Your task to perform on an android device: uninstall "File Manager" Image 0: 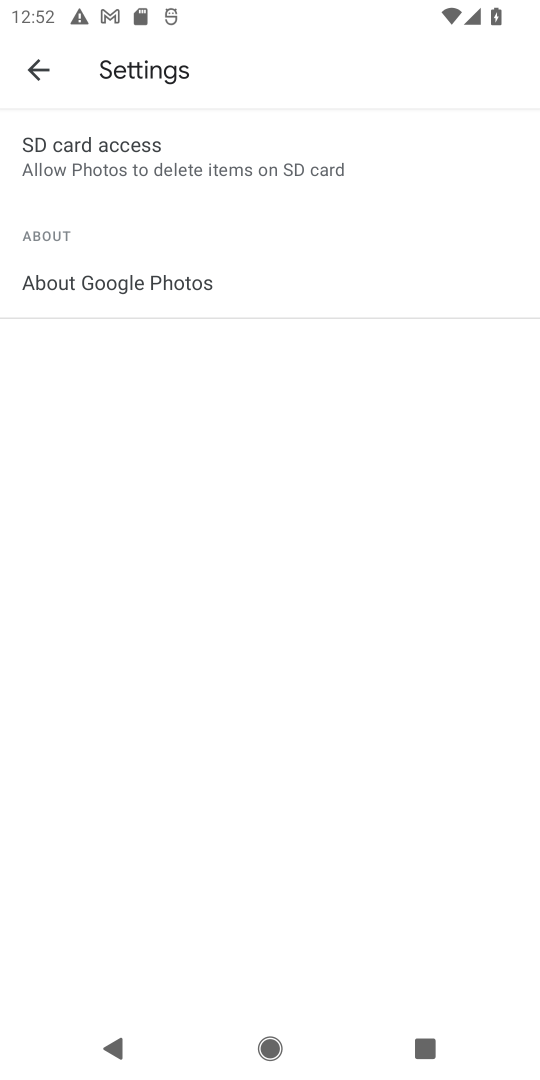
Step 0: press home button
Your task to perform on an android device: uninstall "File Manager" Image 1: 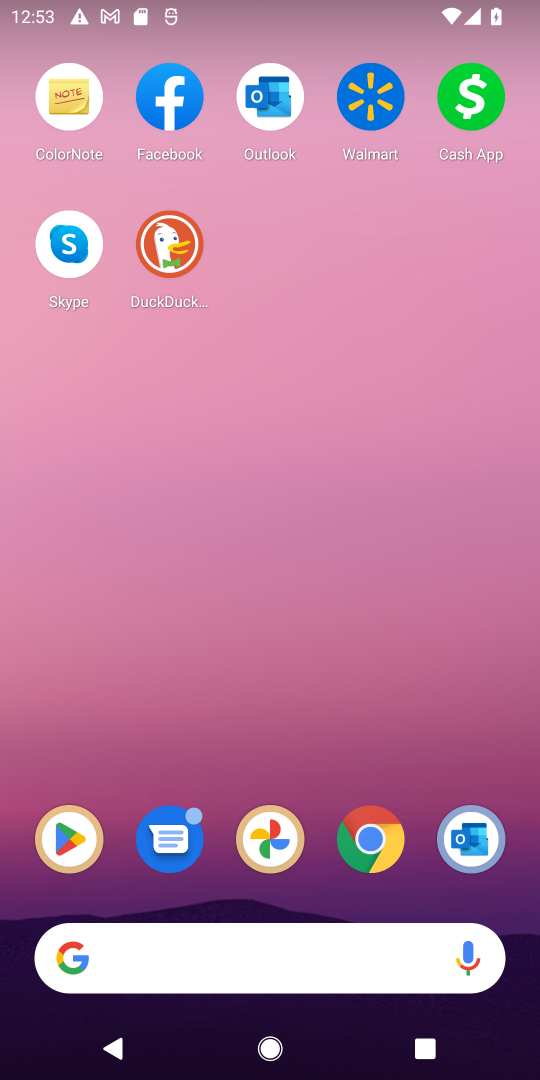
Step 1: click (83, 840)
Your task to perform on an android device: uninstall "File Manager" Image 2: 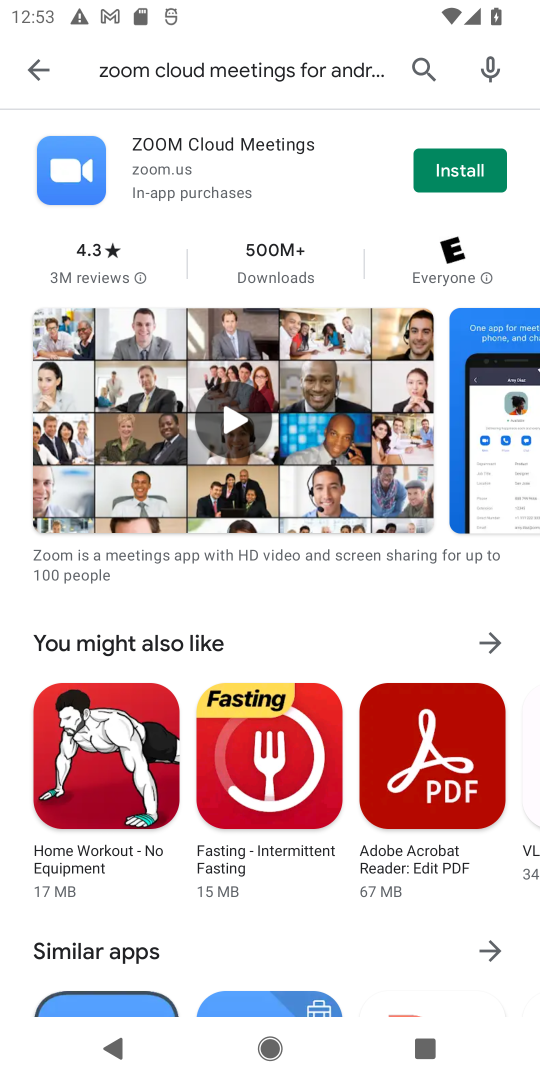
Step 2: click (424, 59)
Your task to perform on an android device: uninstall "File Manager" Image 3: 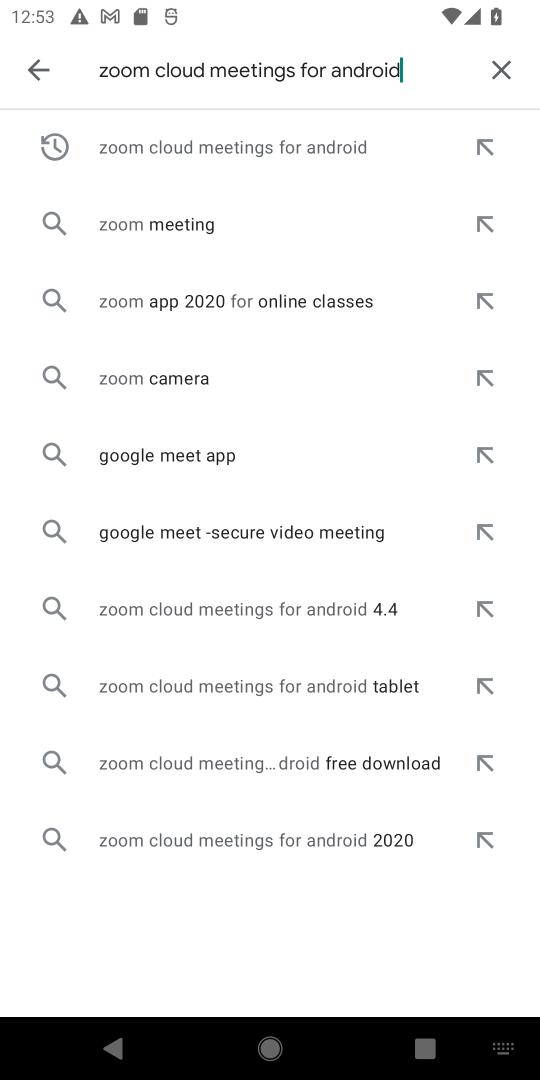
Step 3: click (500, 68)
Your task to perform on an android device: uninstall "File Manager" Image 4: 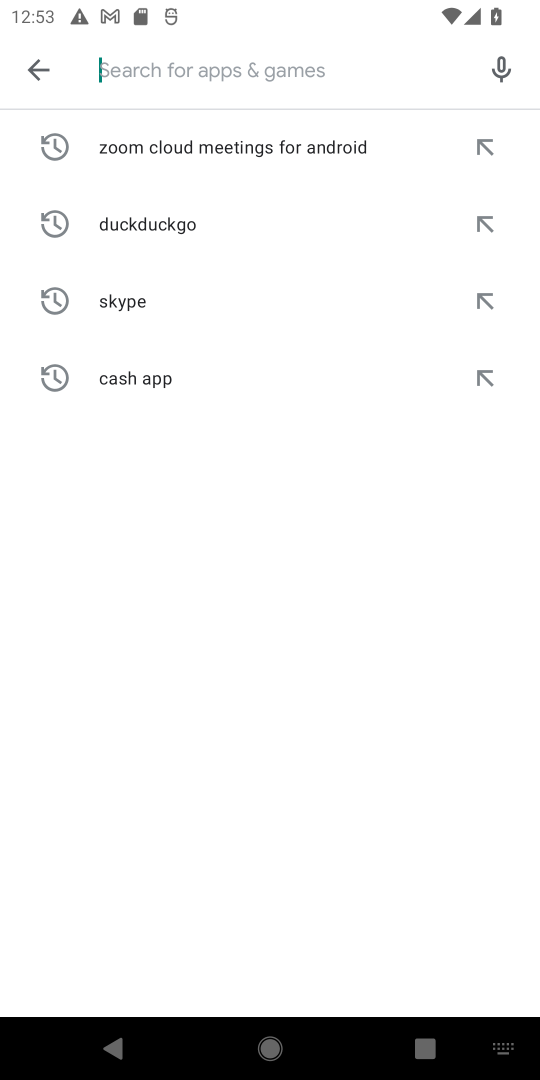
Step 4: type "file manager"
Your task to perform on an android device: uninstall "File Manager" Image 5: 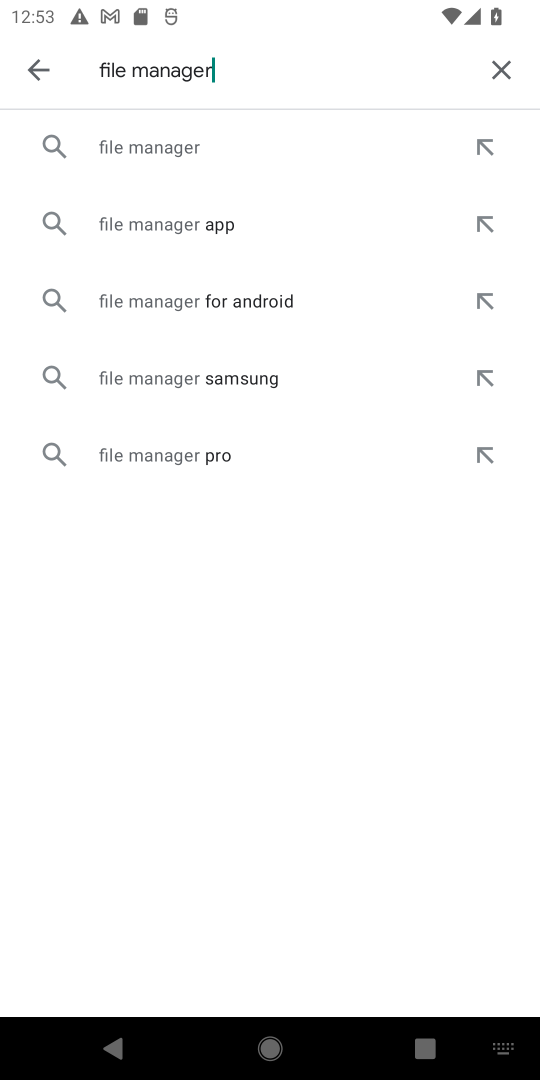
Step 5: click (185, 130)
Your task to perform on an android device: uninstall "File Manager" Image 6: 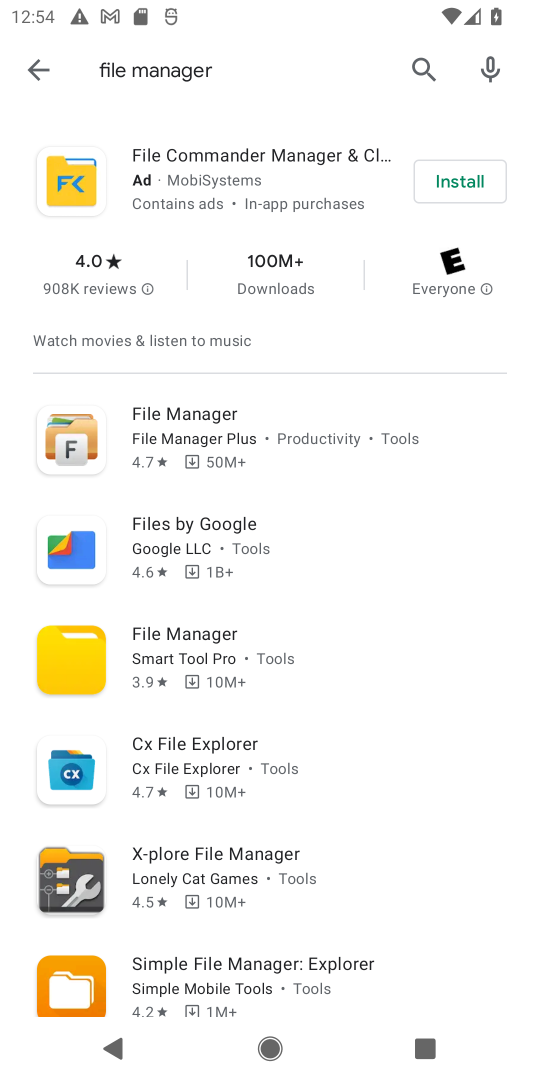
Step 6: task complete